Your task to perform on an android device: What's on the menu at Taco Bell? Image 0: 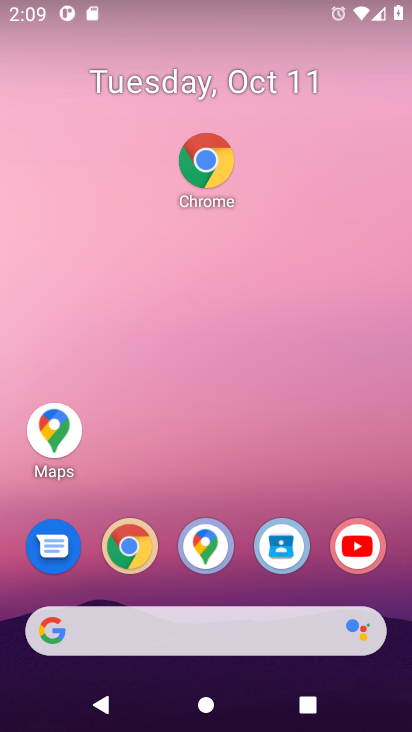
Step 0: click (127, 559)
Your task to perform on an android device: What's on the menu at Taco Bell? Image 1: 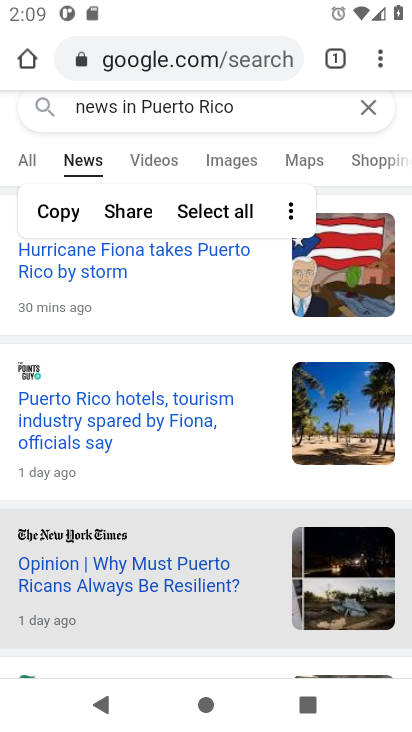
Step 1: click (333, 58)
Your task to perform on an android device: What's on the menu at Taco Bell? Image 2: 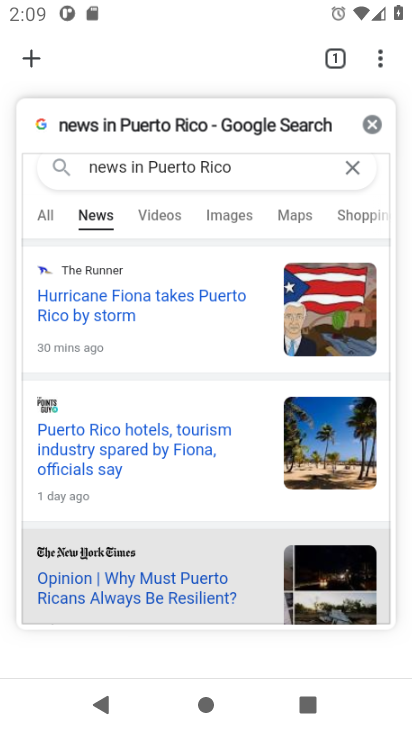
Step 2: click (369, 124)
Your task to perform on an android device: What's on the menu at Taco Bell? Image 3: 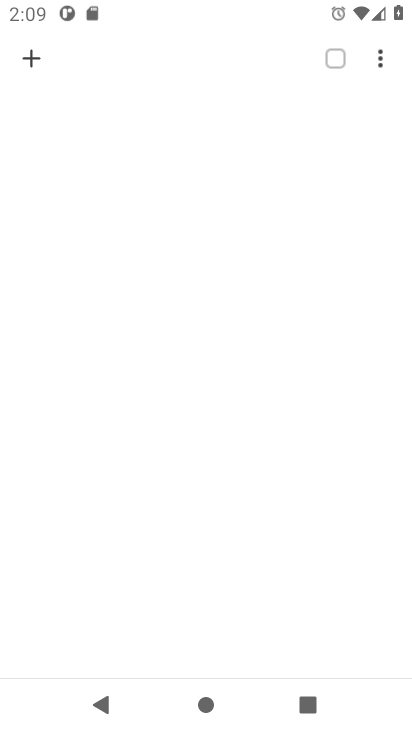
Step 3: click (29, 59)
Your task to perform on an android device: What's on the menu at Taco Bell? Image 4: 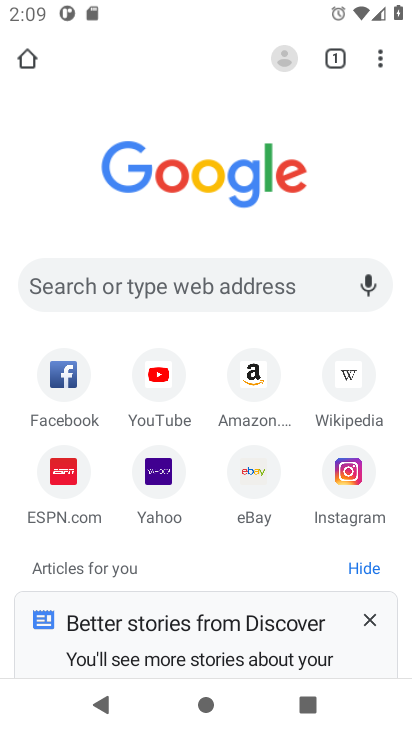
Step 4: click (220, 278)
Your task to perform on an android device: What's on the menu at Taco Bell? Image 5: 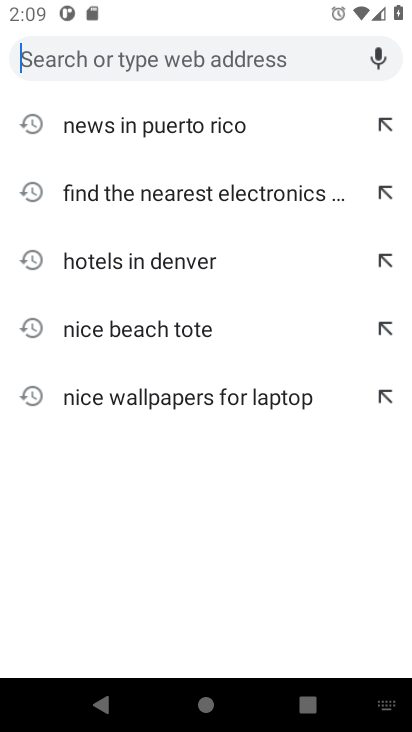
Step 5: type "Taco Bell menu"
Your task to perform on an android device: What's on the menu at Taco Bell? Image 6: 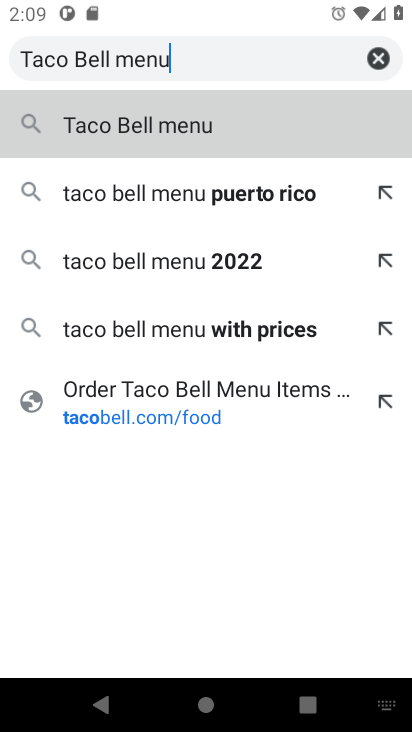
Step 6: press enter
Your task to perform on an android device: What's on the menu at Taco Bell? Image 7: 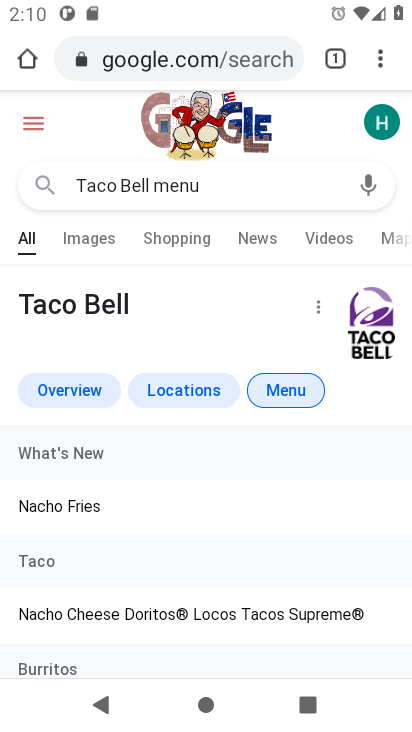
Step 7: drag from (86, 578) to (181, 292)
Your task to perform on an android device: What's on the menu at Taco Bell? Image 8: 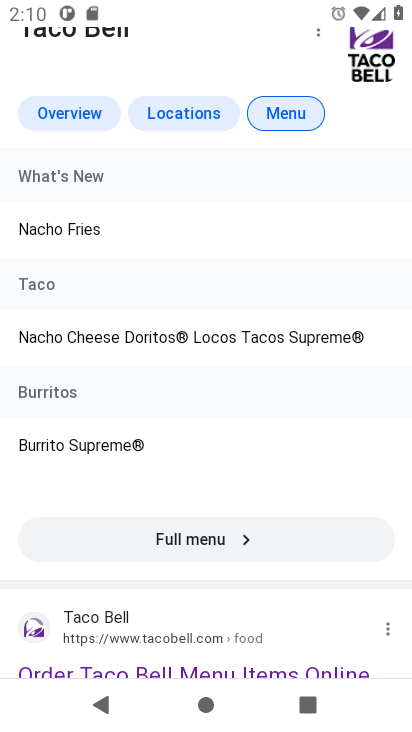
Step 8: click (226, 535)
Your task to perform on an android device: What's on the menu at Taco Bell? Image 9: 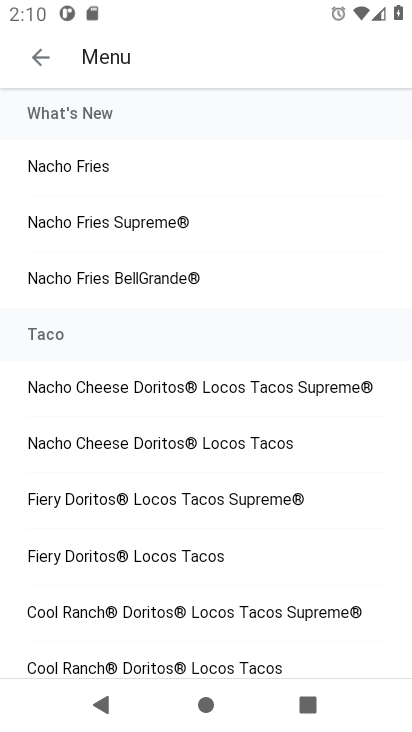
Step 9: task complete